Your task to perform on an android device: Go to Yahoo.com Image 0: 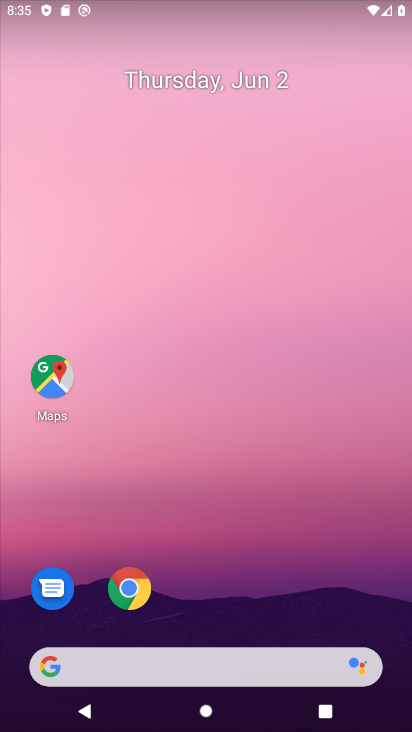
Step 0: click (140, 583)
Your task to perform on an android device: Go to Yahoo.com Image 1: 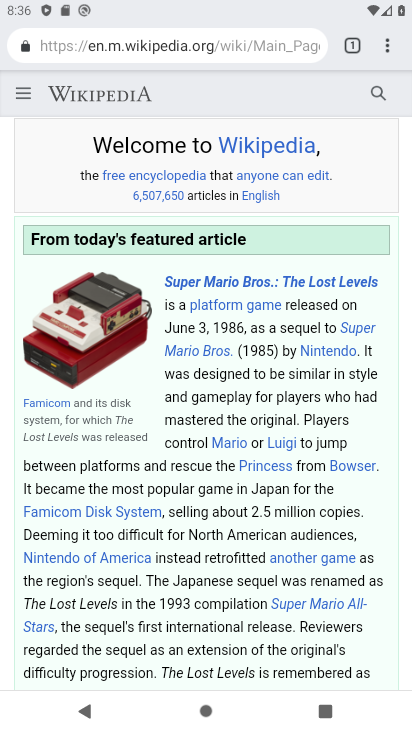
Step 1: click (351, 49)
Your task to perform on an android device: Go to Yahoo.com Image 2: 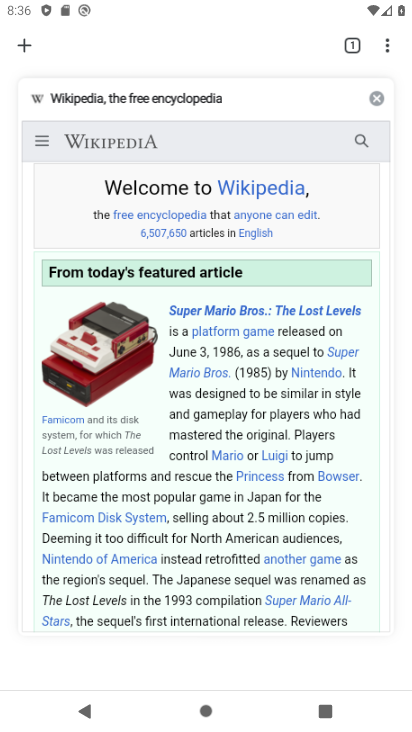
Step 2: click (377, 99)
Your task to perform on an android device: Go to Yahoo.com Image 3: 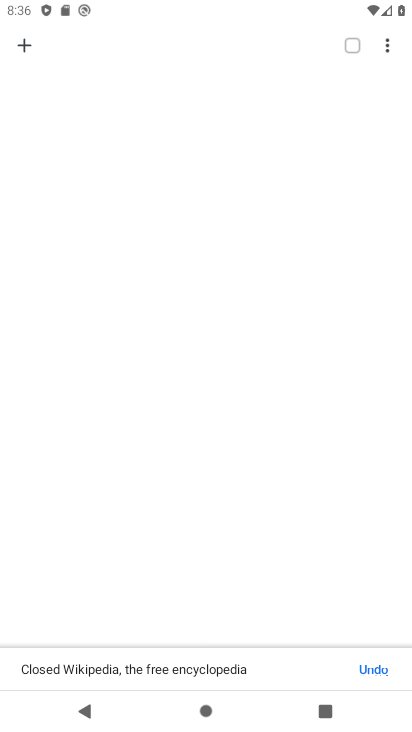
Step 3: click (28, 58)
Your task to perform on an android device: Go to Yahoo.com Image 4: 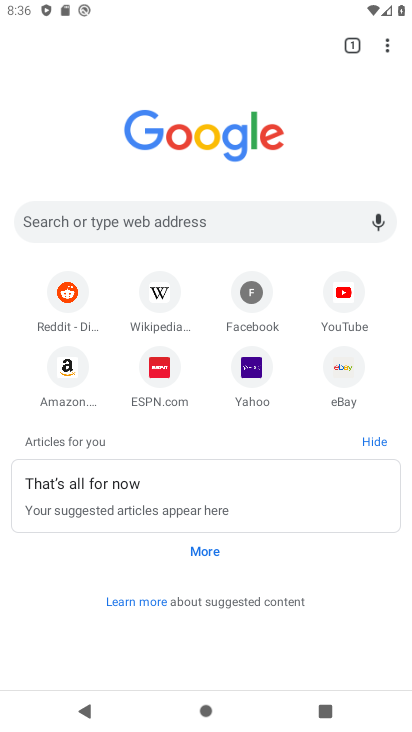
Step 4: click (244, 363)
Your task to perform on an android device: Go to Yahoo.com Image 5: 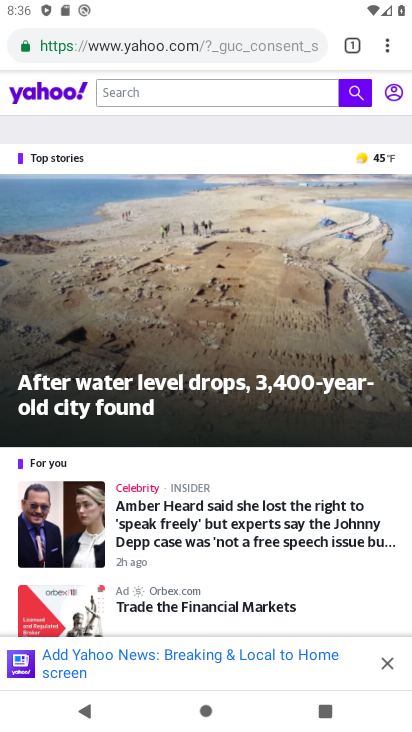
Step 5: task complete